Your task to perform on an android device: turn off notifications in google photos Image 0: 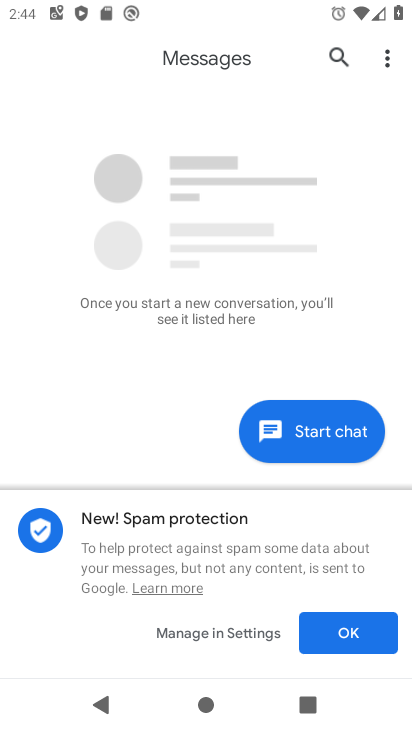
Step 0: press home button
Your task to perform on an android device: turn off notifications in google photos Image 1: 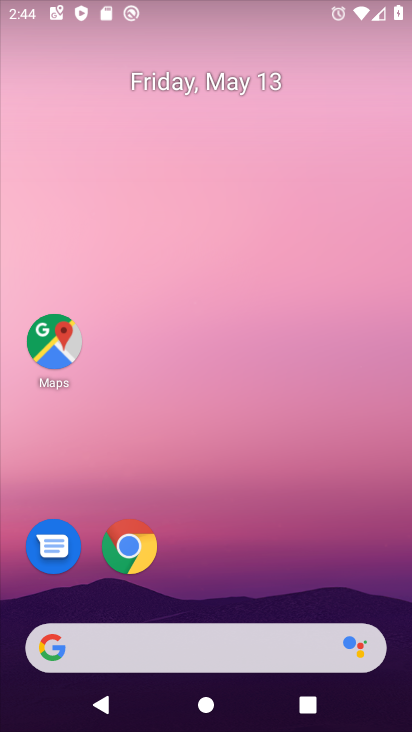
Step 1: drag from (282, 578) to (286, 101)
Your task to perform on an android device: turn off notifications in google photos Image 2: 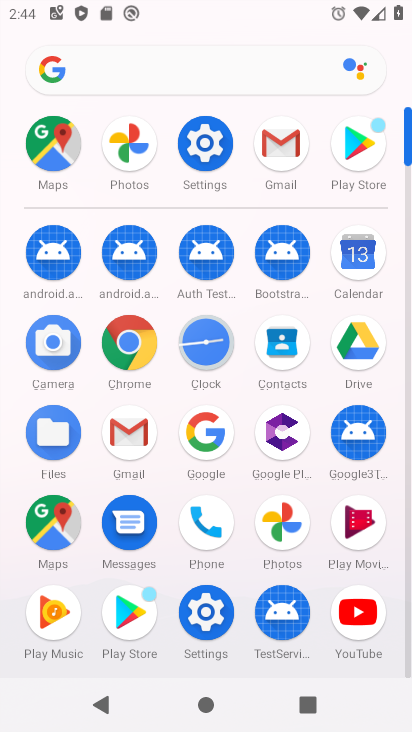
Step 2: click (192, 140)
Your task to perform on an android device: turn off notifications in google photos Image 3: 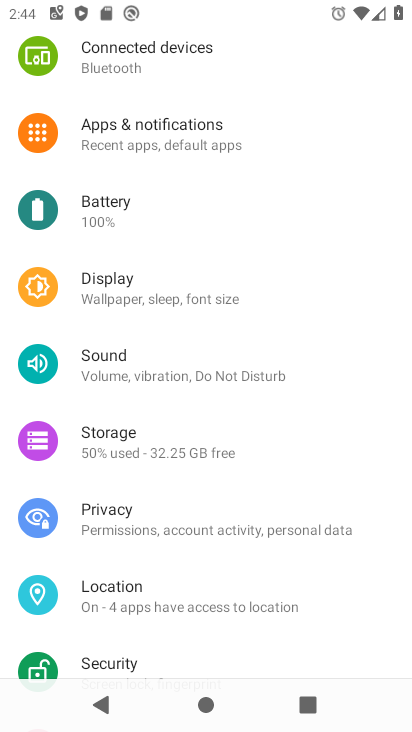
Step 3: press home button
Your task to perform on an android device: turn off notifications in google photos Image 4: 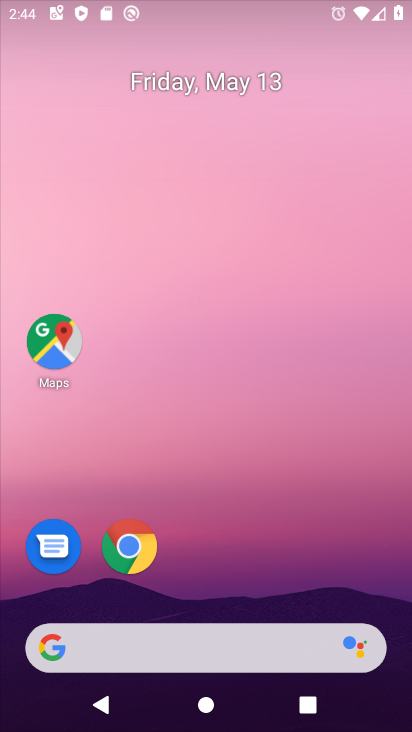
Step 4: drag from (279, 594) to (315, 206)
Your task to perform on an android device: turn off notifications in google photos Image 5: 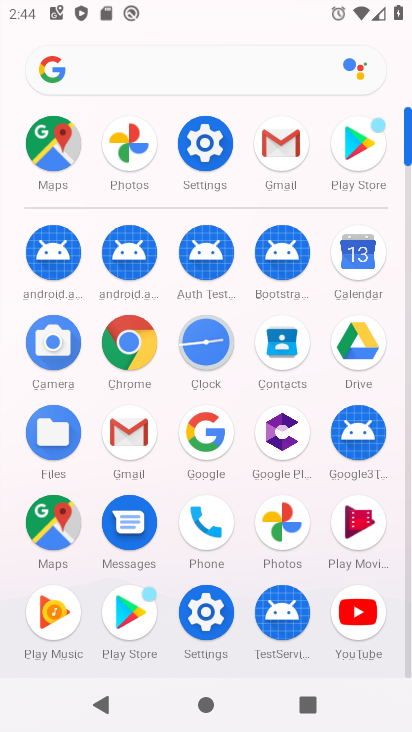
Step 5: click (279, 522)
Your task to perform on an android device: turn off notifications in google photos Image 6: 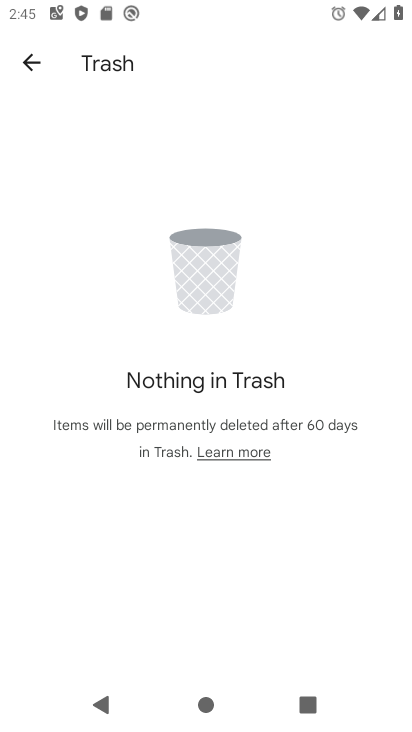
Step 6: click (40, 64)
Your task to perform on an android device: turn off notifications in google photos Image 7: 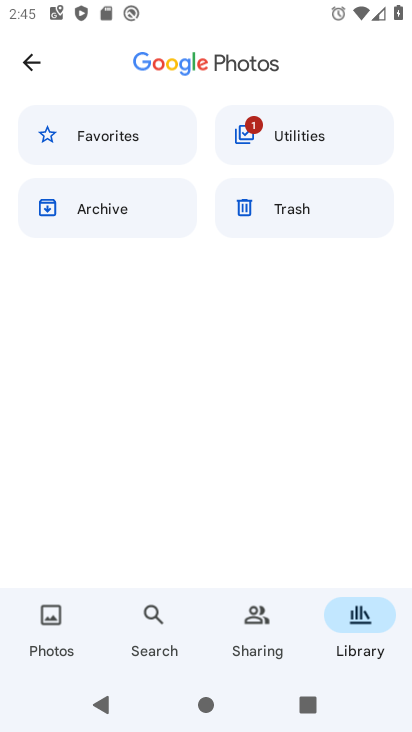
Step 7: click (39, 63)
Your task to perform on an android device: turn off notifications in google photos Image 8: 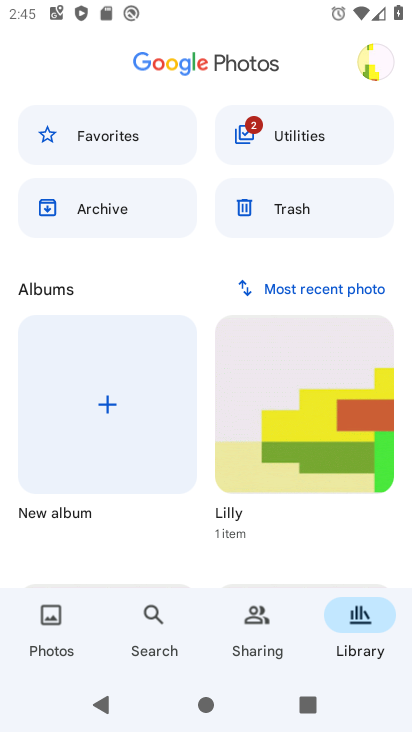
Step 8: click (386, 59)
Your task to perform on an android device: turn off notifications in google photos Image 9: 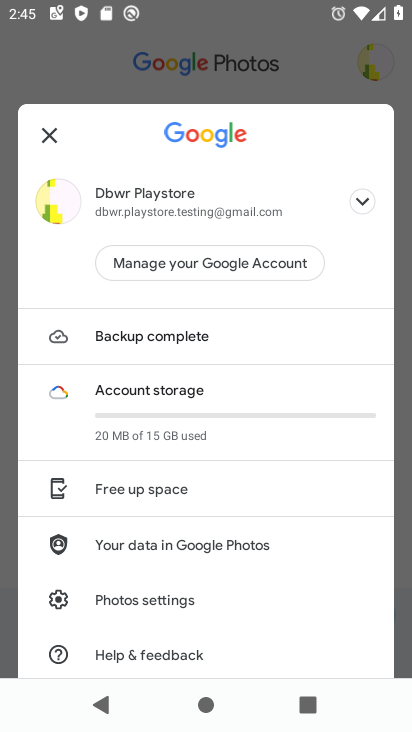
Step 9: drag from (283, 566) to (293, 253)
Your task to perform on an android device: turn off notifications in google photos Image 10: 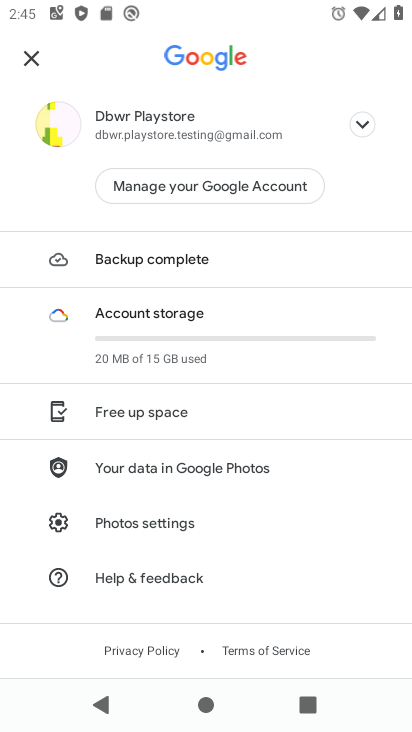
Step 10: click (169, 518)
Your task to perform on an android device: turn off notifications in google photos Image 11: 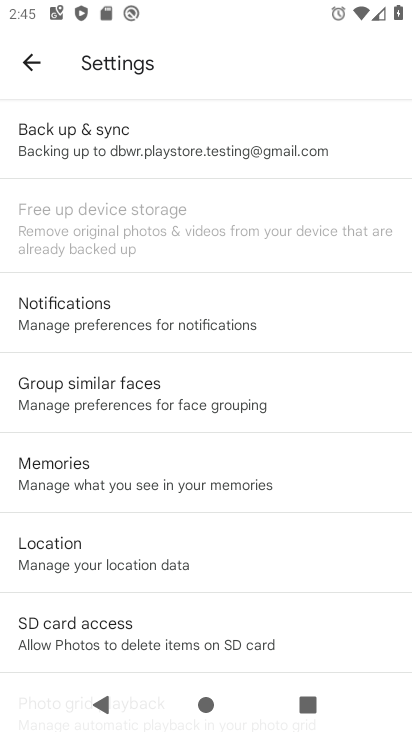
Step 11: click (145, 332)
Your task to perform on an android device: turn off notifications in google photos Image 12: 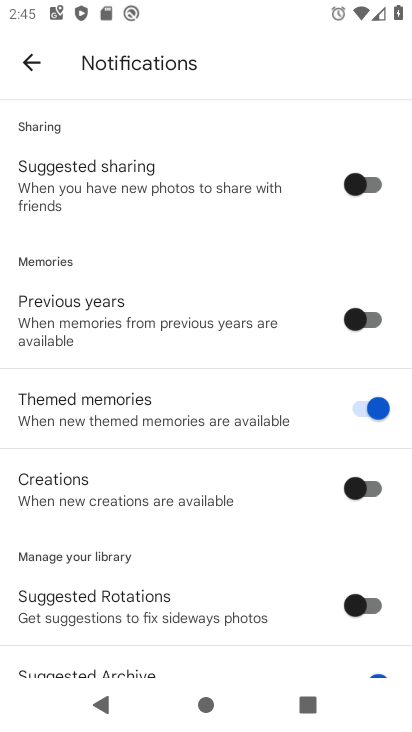
Step 12: drag from (260, 512) to (307, 69)
Your task to perform on an android device: turn off notifications in google photos Image 13: 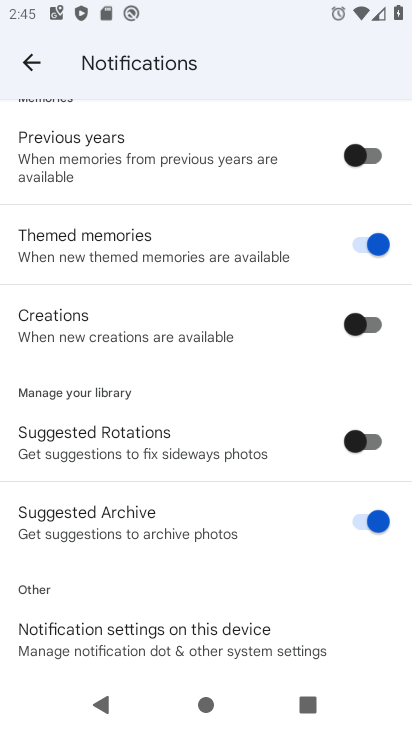
Step 13: click (246, 641)
Your task to perform on an android device: turn off notifications in google photos Image 14: 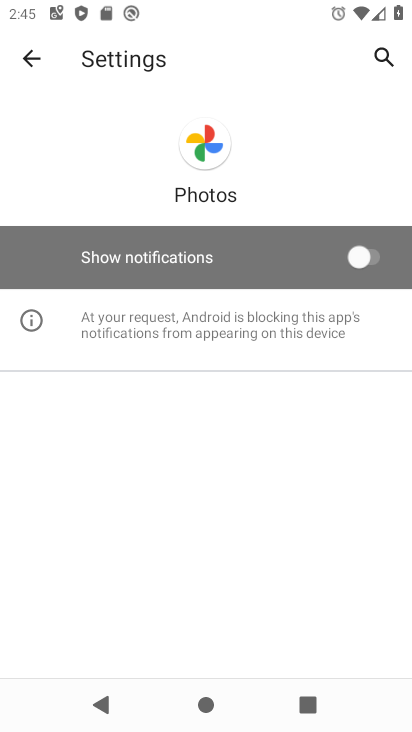
Step 14: task complete